Your task to perform on an android device: Go to settings Image 0: 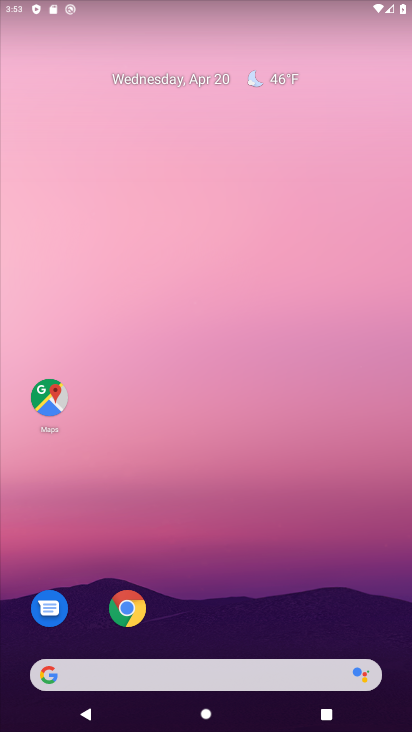
Step 0: drag from (136, 376) to (287, 7)
Your task to perform on an android device: Go to settings Image 1: 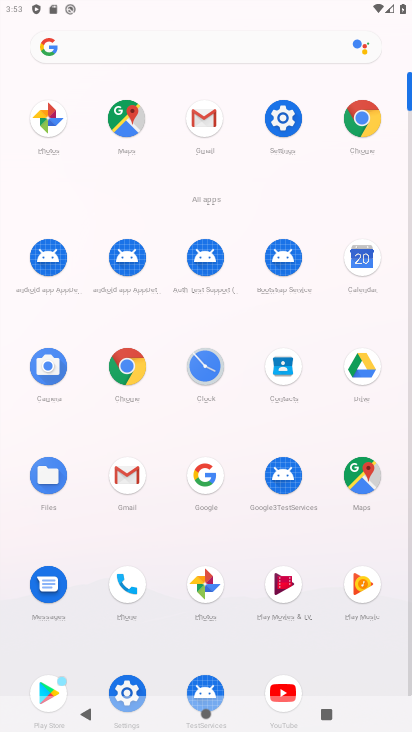
Step 1: click (288, 125)
Your task to perform on an android device: Go to settings Image 2: 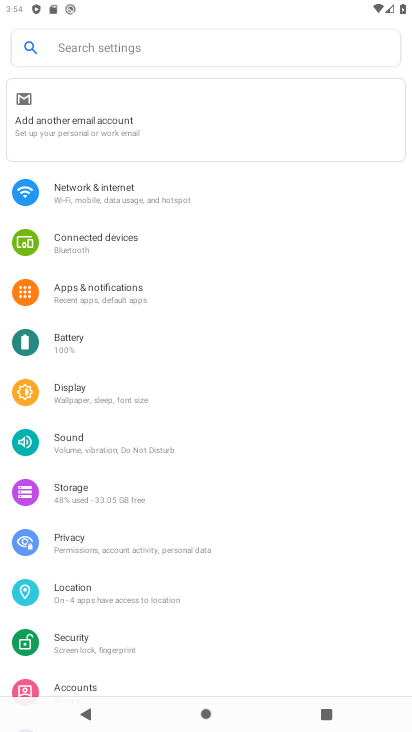
Step 2: task complete